Your task to perform on an android device: turn on sleep mode Image 0: 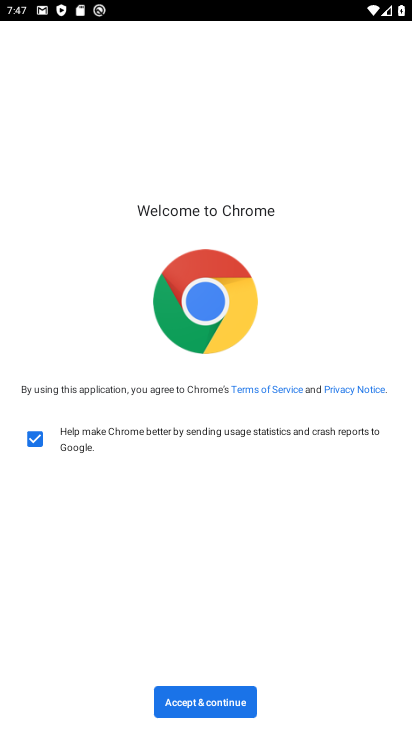
Step 0: press home button
Your task to perform on an android device: turn on sleep mode Image 1: 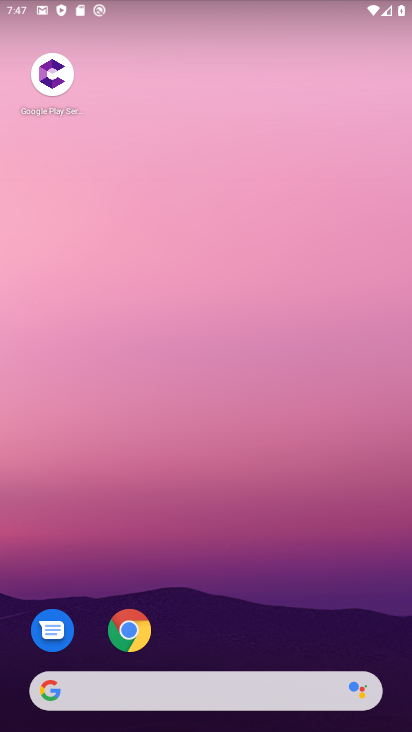
Step 1: drag from (264, 654) to (243, 83)
Your task to perform on an android device: turn on sleep mode Image 2: 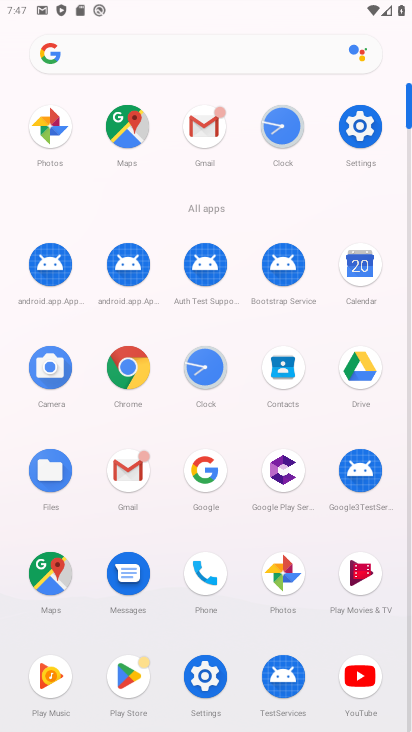
Step 2: click (371, 108)
Your task to perform on an android device: turn on sleep mode Image 3: 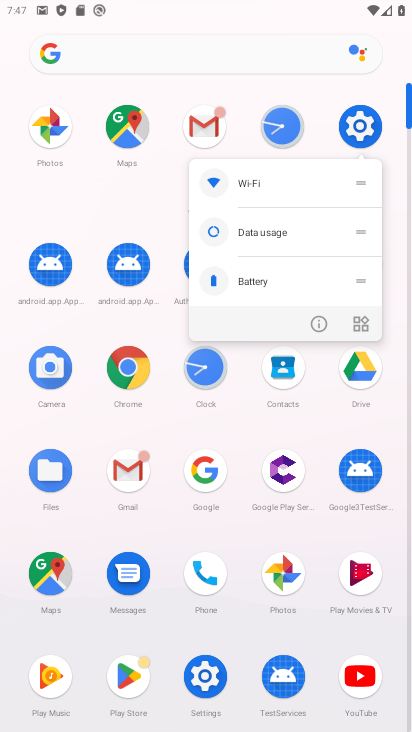
Step 3: click (346, 127)
Your task to perform on an android device: turn on sleep mode Image 4: 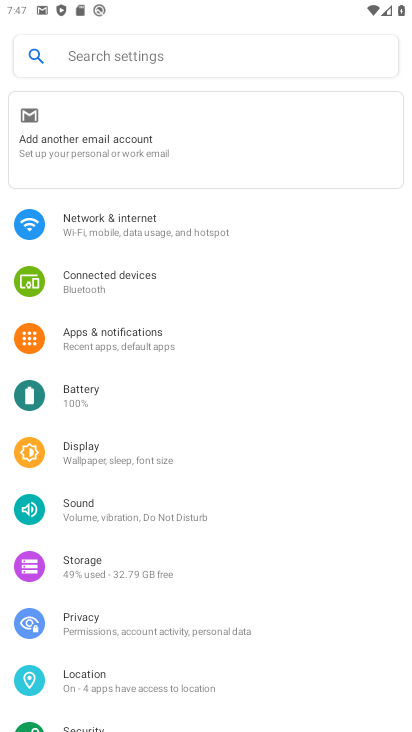
Step 4: click (113, 452)
Your task to perform on an android device: turn on sleep mode Image 5: 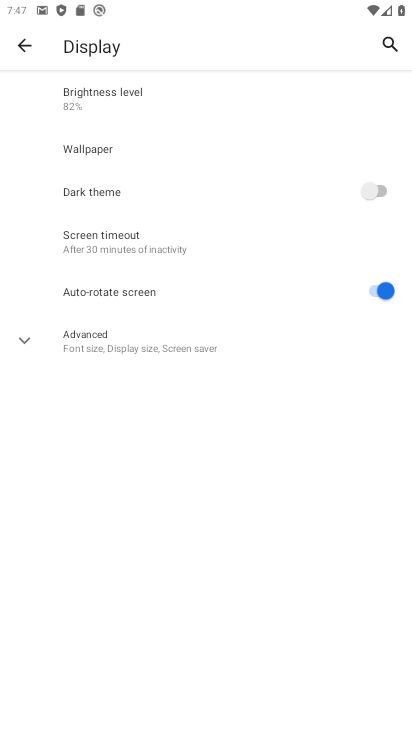
Step 5: click (194, 333)
Your task to perform on an android device: turn on sleep mode Image 6: 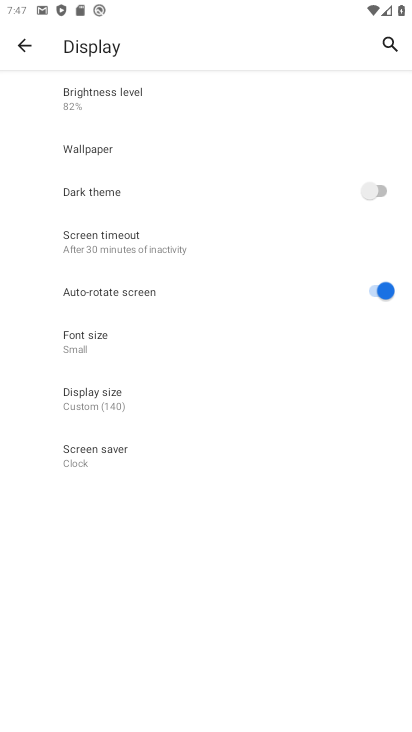
Step 6: task complete